Your task to perform on an android device: Empty the shopping cart on ebay.com. Add "logitech g pro" to the cart on ebay.com, then select checkout. Image 0: 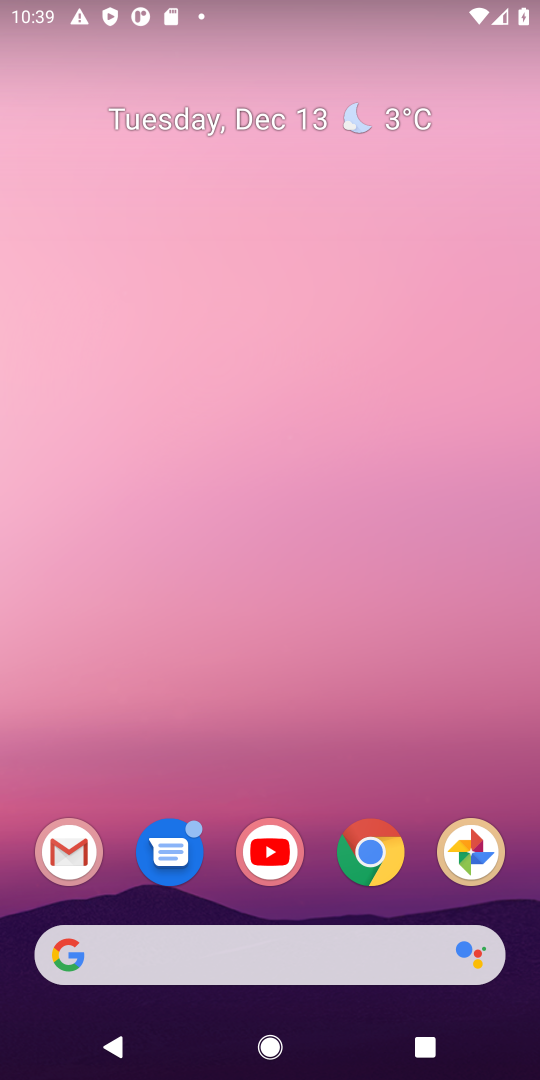
Step 0: press home button
Your task to perform on an android device: Empty the shopping cart on ebay.com. Add "logitech g pro" to the cart on ebay.com, then select checkout. Image 1: 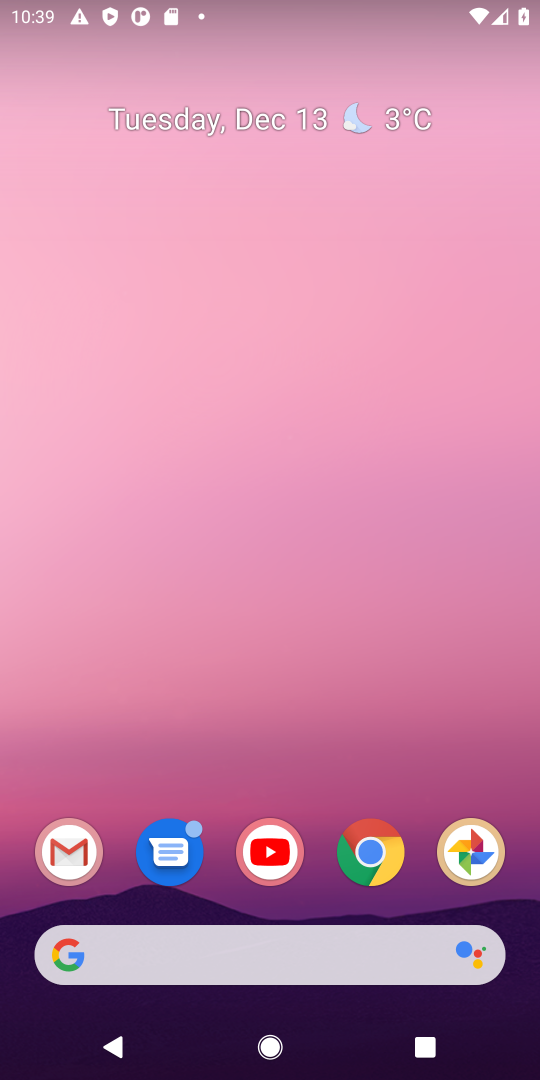
Step 1: click (194, 938)
Your task to perform on an android device: Empty the shopping cart on ebay.com. Add "logitech g pro" to the cart on ebay.com, then select checkout. Image 2: 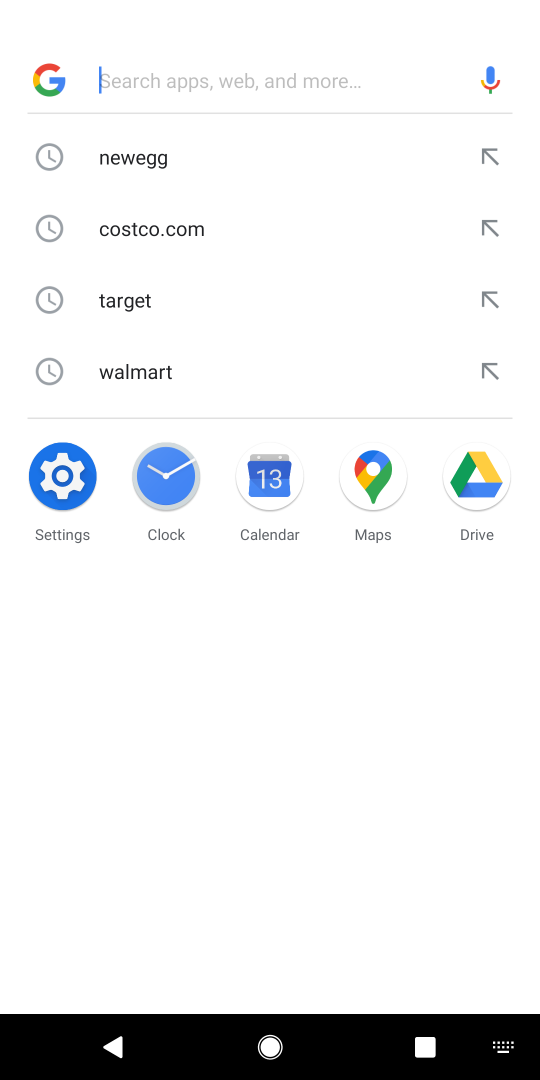
Step 2: type "ebay.com"
Your task to perform on an android device: Empty the shopping cart on ebay.com. Add "logitech g pro" to the cart on ebay.com, then select checkout. Image 3: 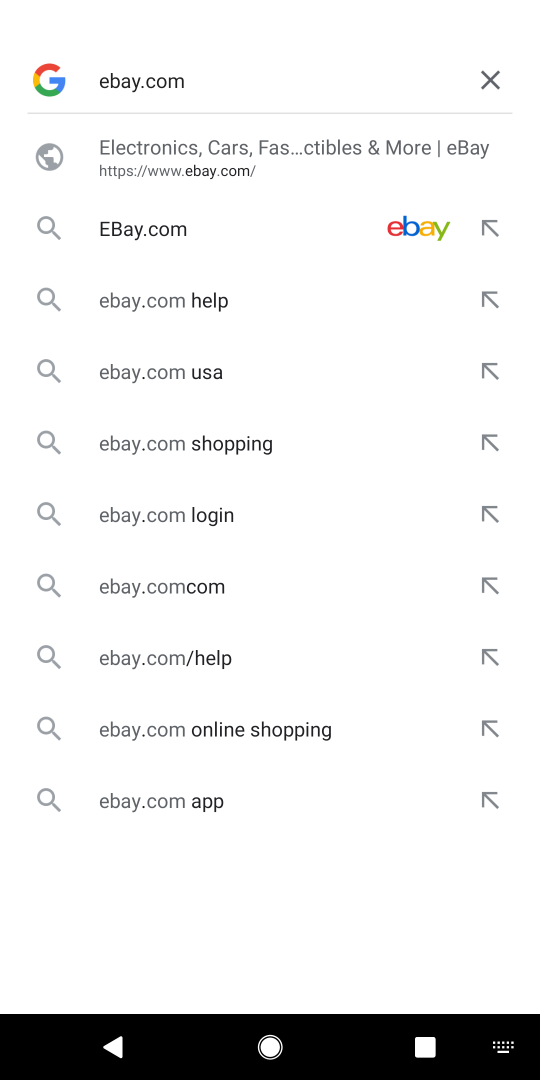
Step 3: press enter
Your task to perform on an android device: Empty the shopping cart on ebay.com. Add "logitech g pro" to the cart on ebay.com, then select checkout. Image 4: 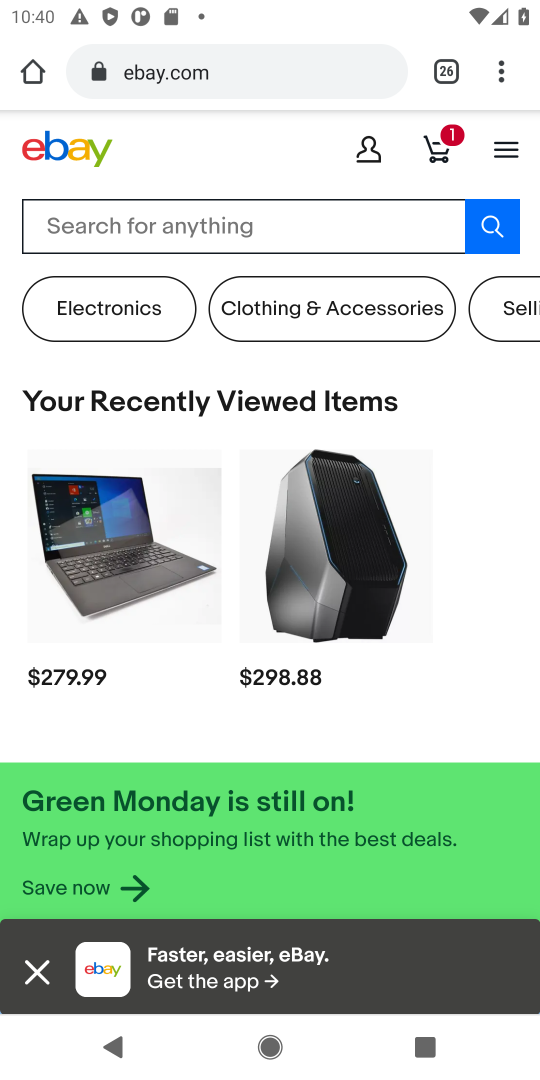
Step 4: click (447, 154)
Your task to perform on an android device: Empty the shopping cart on ebay.com. Add "logitech g pro" to the cart on ebay.com, then select checkout. Image 5: 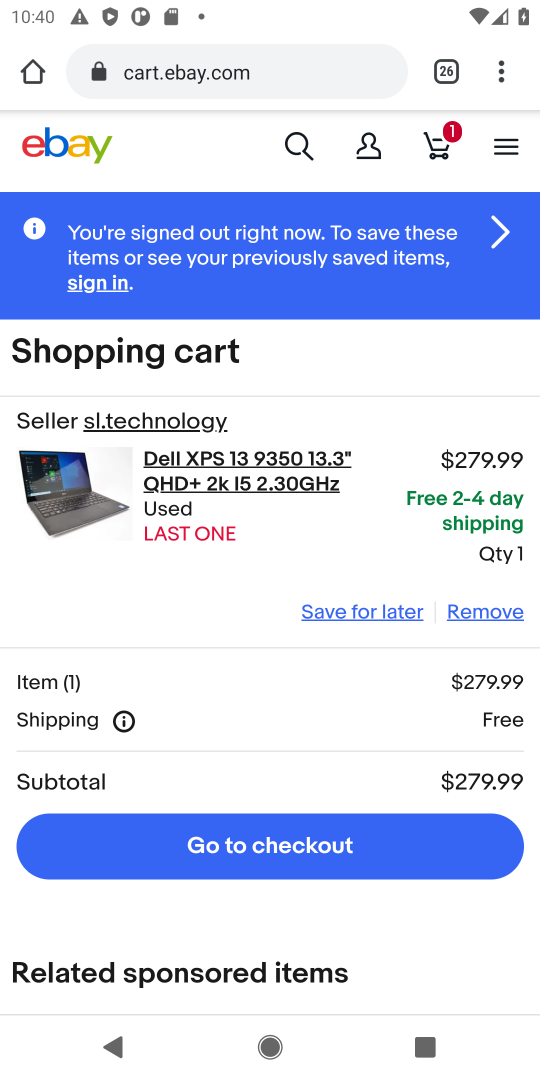
Step 5: click (484, 608)
Your task to perform on an android device: Empty the shopping cart on ebay.com. Add "logitech g pro" to the cart on ebay.com, then select checkout. Image 6: 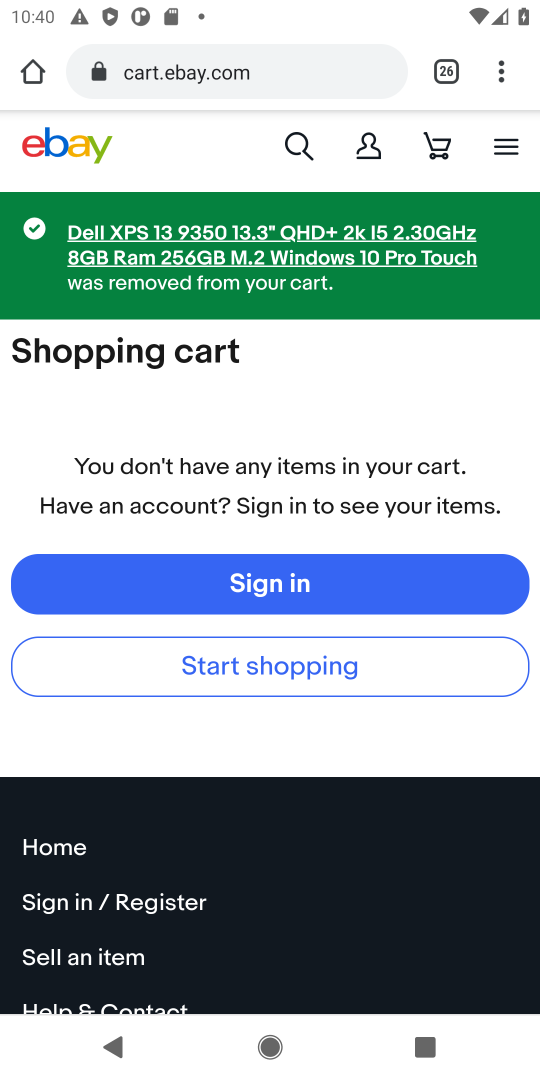
Step 6: click (293, 140)
Your task to perform on an android device: Empty the shopping cart on ebay.com. Add "logitech g pro" to the cart on ebay.com, then select checkout. Image 7: 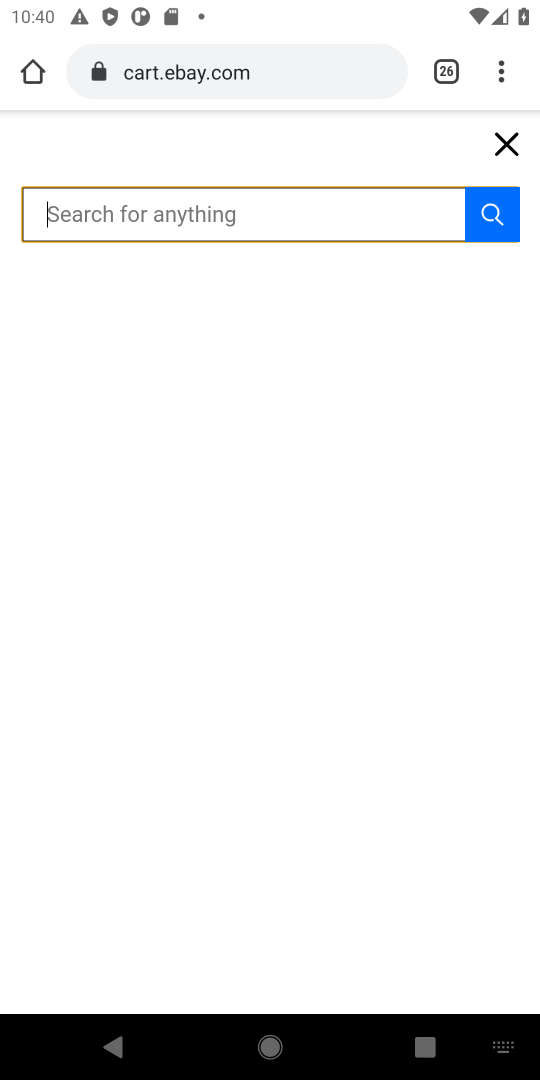
Step 7: type "logitech g pro"
Your task to perform on an android device: Empty the shopping cart on ebay.com. Add "logitech g pro" to the cart on ebay.com, then select checkout. Image 8: 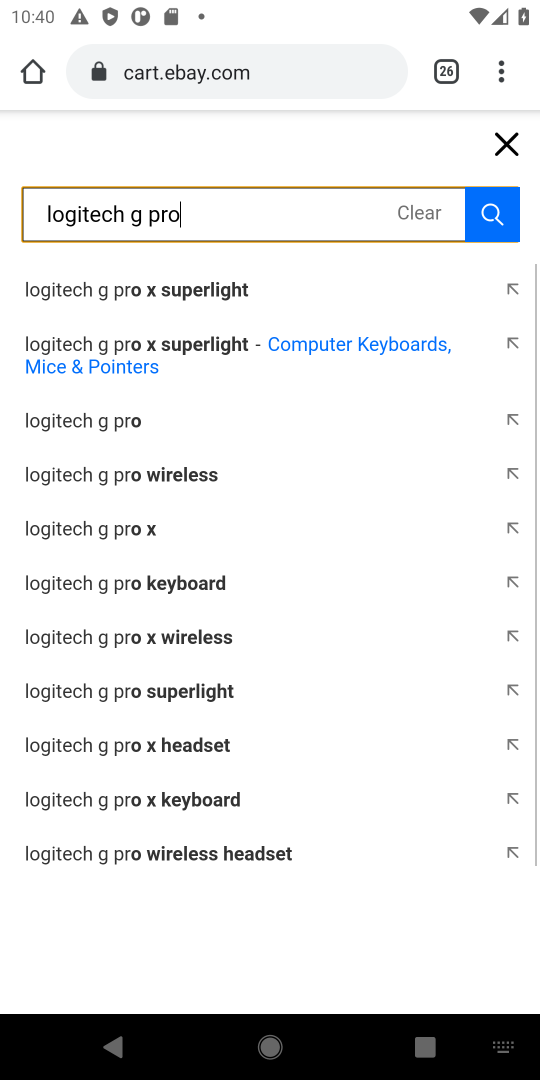
Step 8: press enter
Your task to perform on an android device: Empty the shopping cart on ebay.com. Add "logitech g pro" to the cart on ebay.com, then select checkout. Image 9: 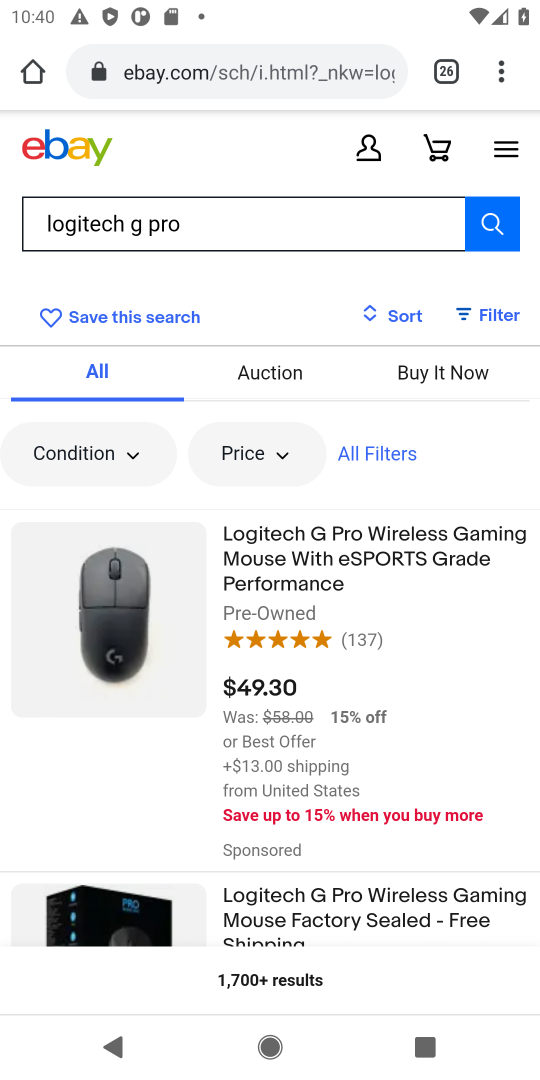
Step 9: click (285, 573)
Your task to perform on an android device: Empty the shopping cart on ebay.com. Add "logitech g pro" to the cart on ebay.com, then select checkout. Image 10: 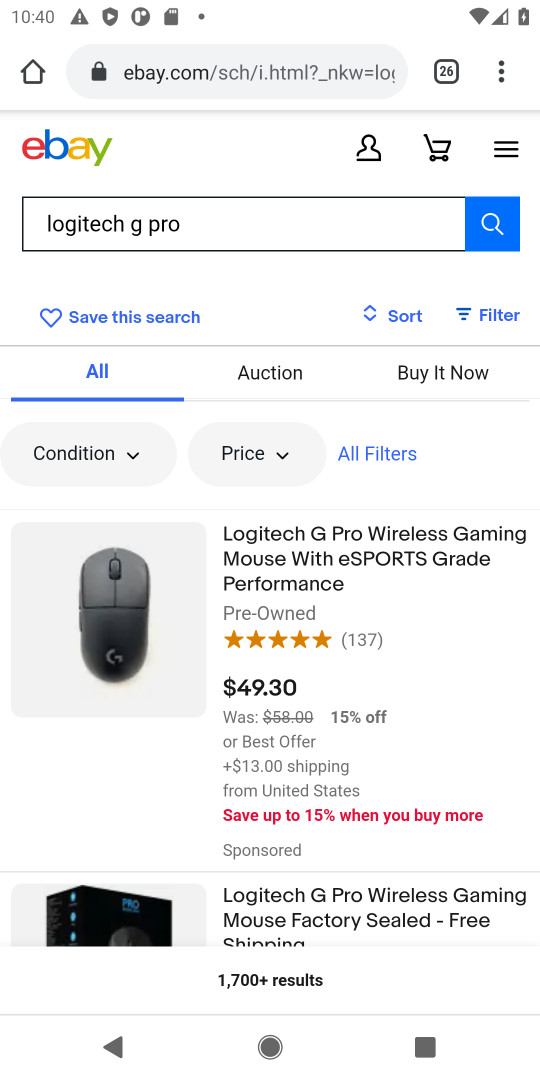
Step 10: click (299, 557)
Your task to perform on an android device: Empty the shopping cart on ebay.com. Add "logitech g pro" to the cart on ebay.com, then select checkout. Image 11: 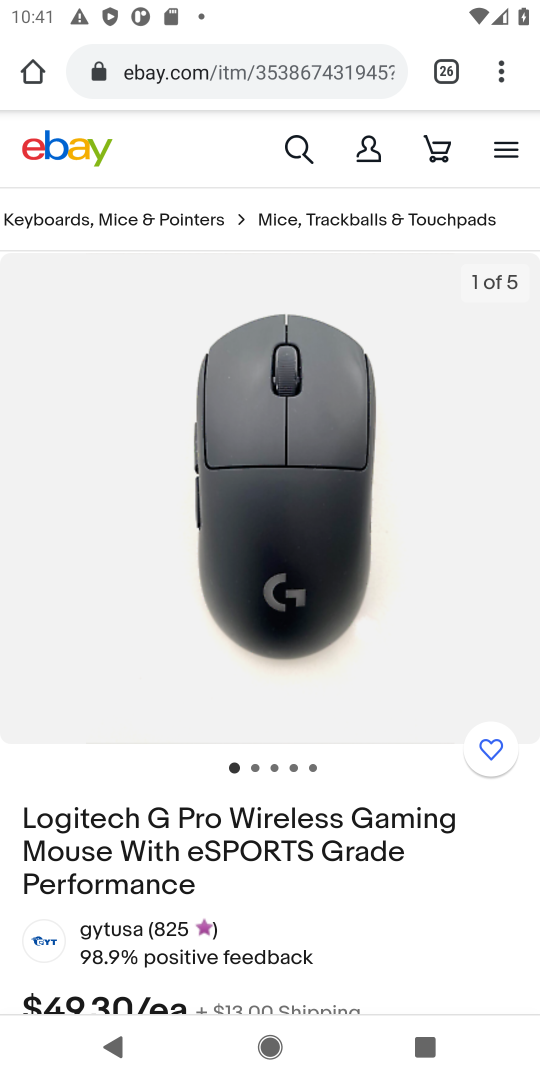
Step 11: drag from (239, 917) to (259, 515)
Your task to perform on an android device: Empty the shopping cart on ebay.com. Add "logitech g pro" to the cart on ebay.com, then select checkout. Image 12: 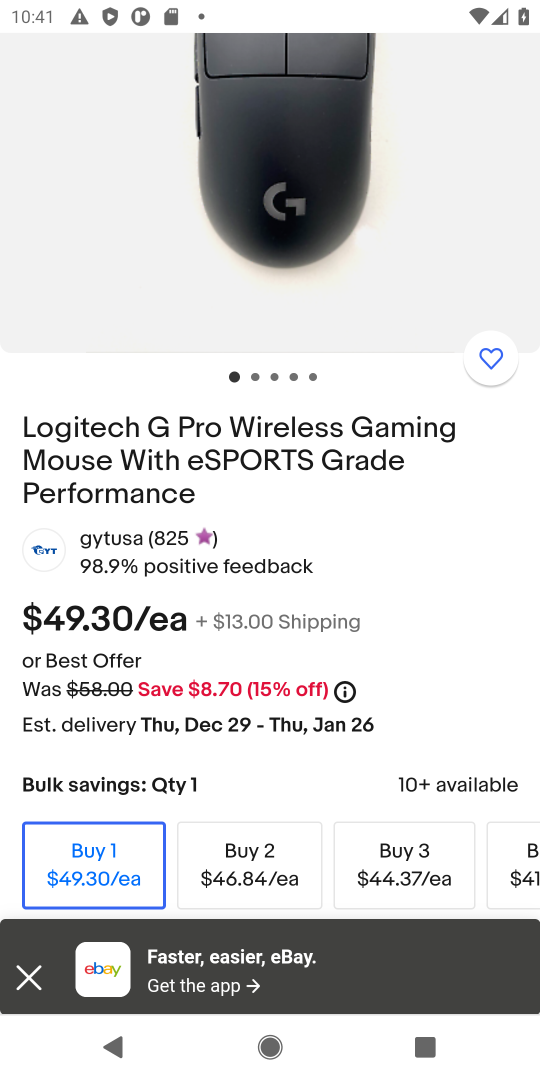
Step 12: click (27, 979)
Your task to perform on an android device: Empty the shopping cart on ebay.com. Add "logitech g pro" to the cart on ebay.com, then select checkout. Image 13: 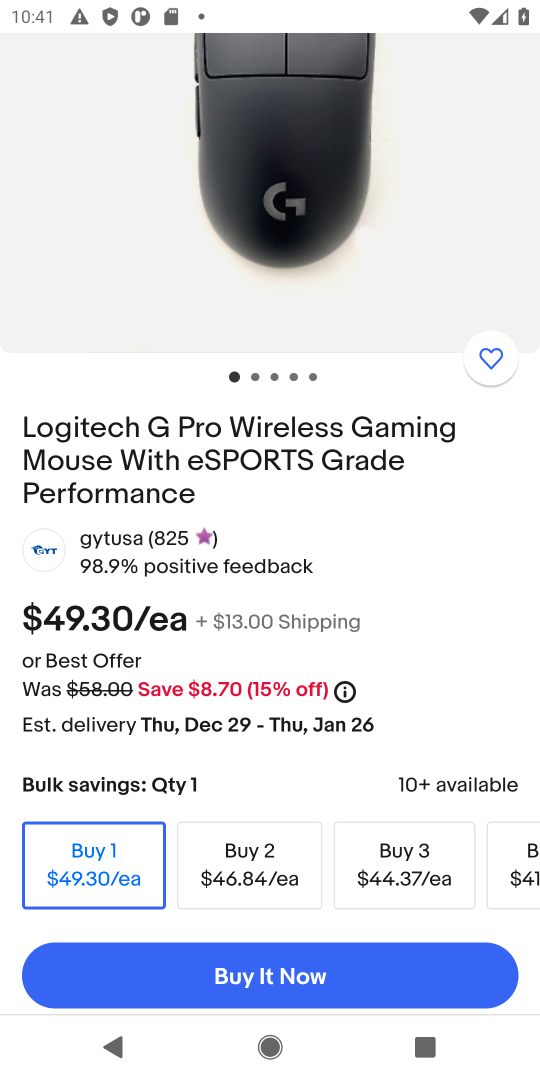
Step 13: drag from (262, 788) to (298, 271)
Your task to perform on an android device: Empty the shopping cart on ebay.com. Add "logitech g pro" to the cart on ebay.com, then select checkout. Image 14: 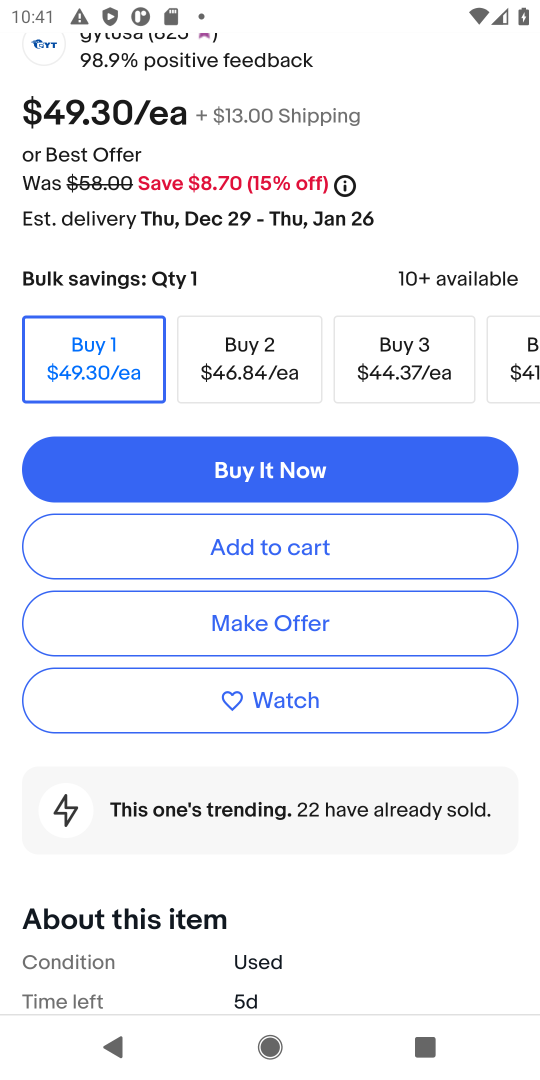
Step 14: click (265, 542)
Your task to perform on an android device: Empty the shopping cart on ebay.com. Add "logitech g pro" to the cart on ebay.com, then select checkout. Image 15: 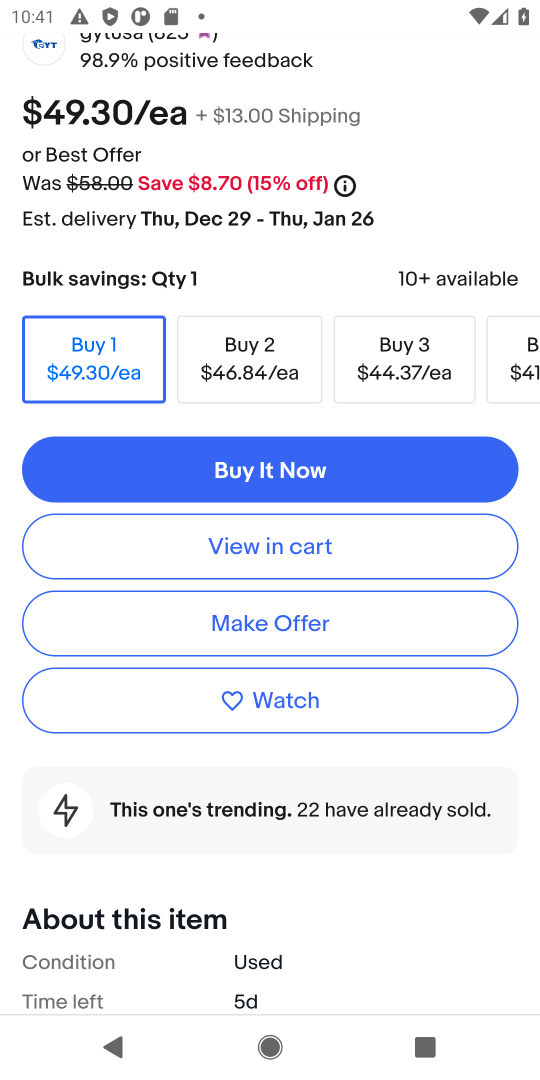
Step 15: click (198, 543)
Your task to perform on an android device: Empty the shopping cart on ebay.com. Add "logitech g pro" to the cart on ebay.com, then select checkout. Image 16: 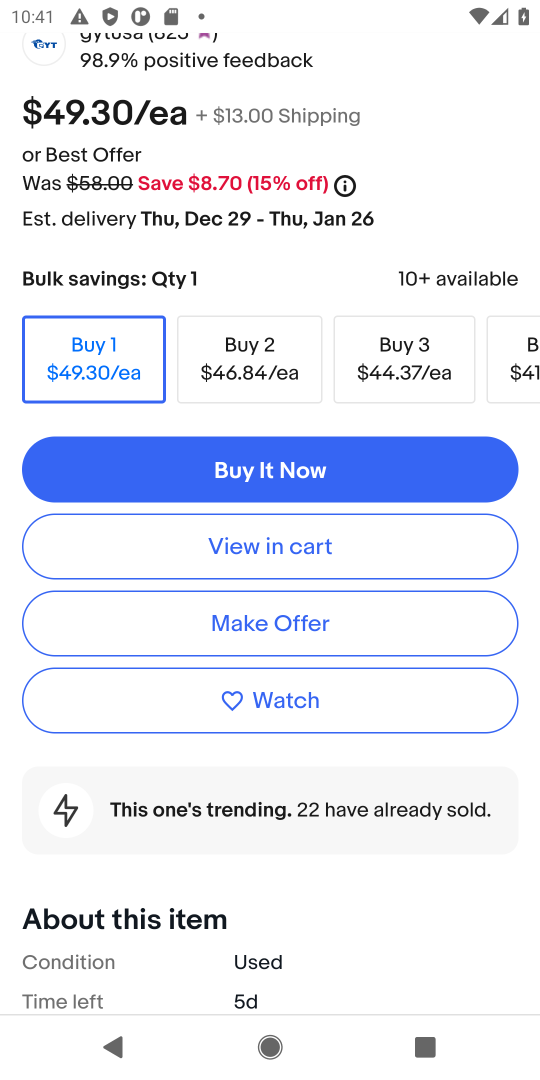
Step 16: click (259, 552)
Your task to perform on an android device: Empty the shopping cart on ebay.com. Add "logitech g pro" to the cart on ebay.com, then select checkout. Image 17: 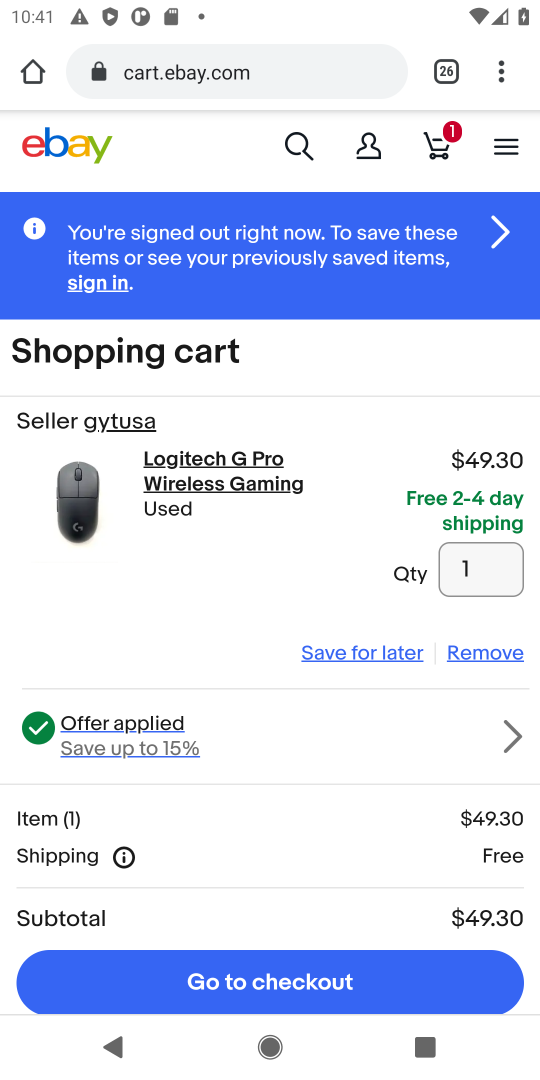
Step 17: click (217, 998)
Your task to perform on an android device: Empty the shopping cart on ebay.com. Add "logitech g pro" to the cart on ebay.com, then select checkout. Image 18: 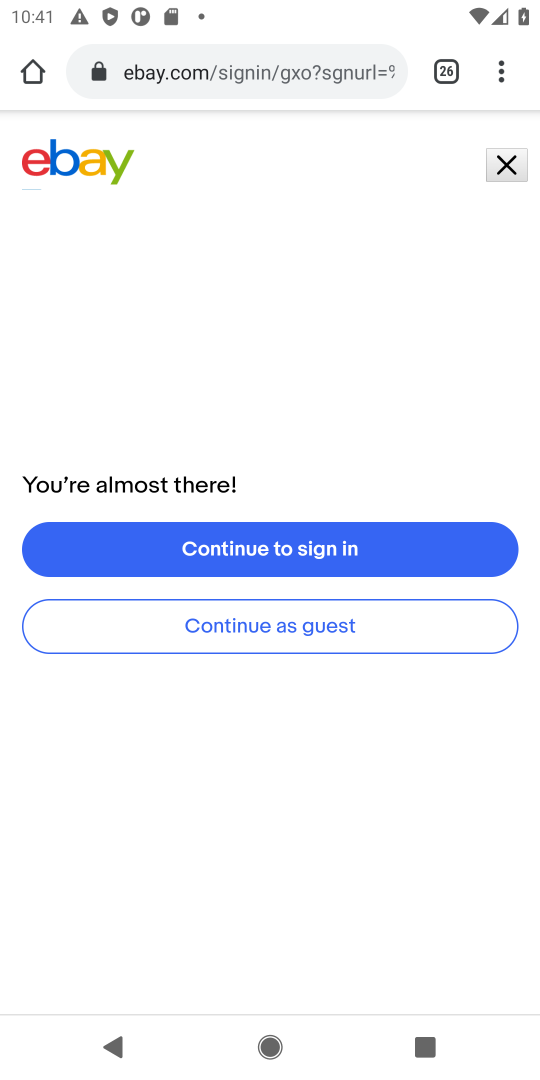
Step 18: task complete